Your task to perform on an android device: Show me the alarms in the clock app Image 0: 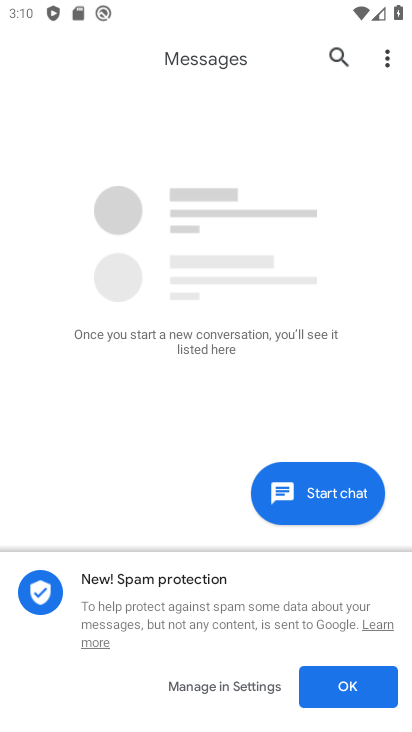
Step 0: press home button
Your task to perform on an android device: Show me the alarms in the clock app Image 1: 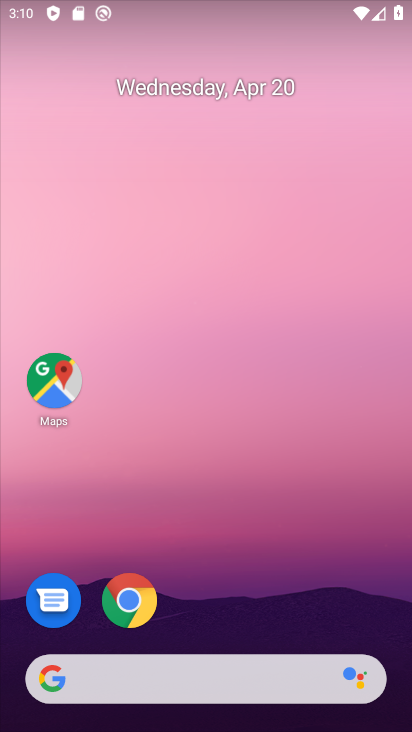
Step 1: click (235, 207)
Your task to perform on an android device: Show me the alarms in the clock app Image 2: 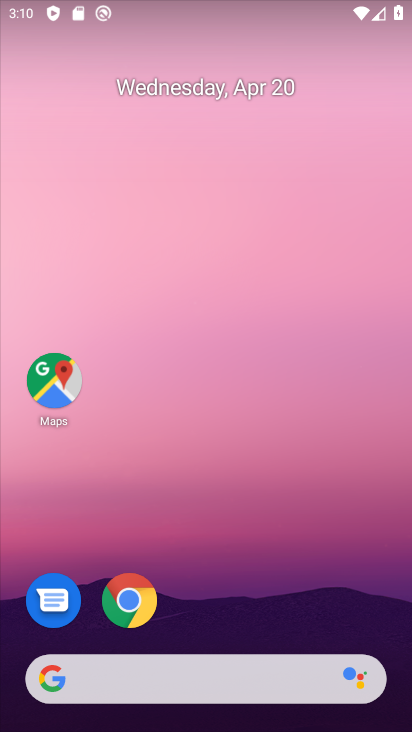
Step 2: drag from (200, 475) to (234, 174)
Your task to perform on an android device: Show me the alarms in the clock app Image 3: 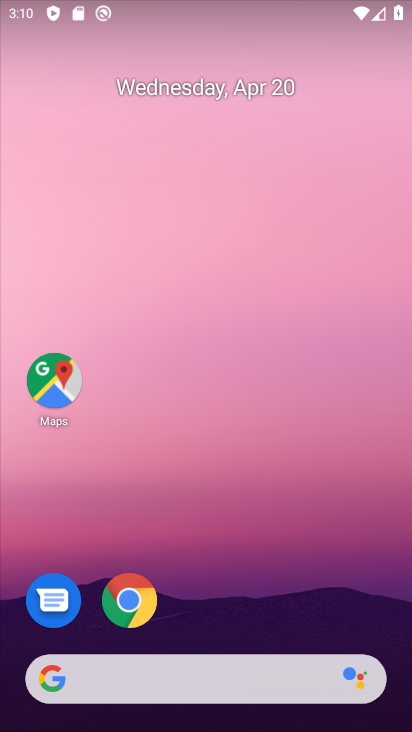
Step 3: drag from (216, 621) to (224, 160)
Your task to perform on an android device: Show me the alarms in the clock app Image 4: 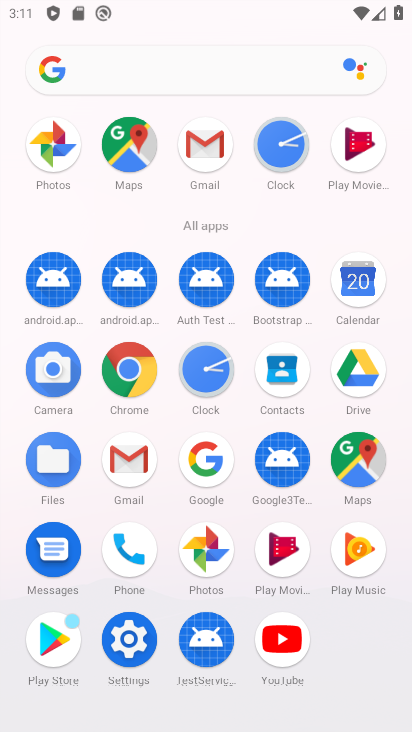
Step 4: click (200, 369)
Your task to perform on an android device: Show me the alarms in the clock app Image 5: 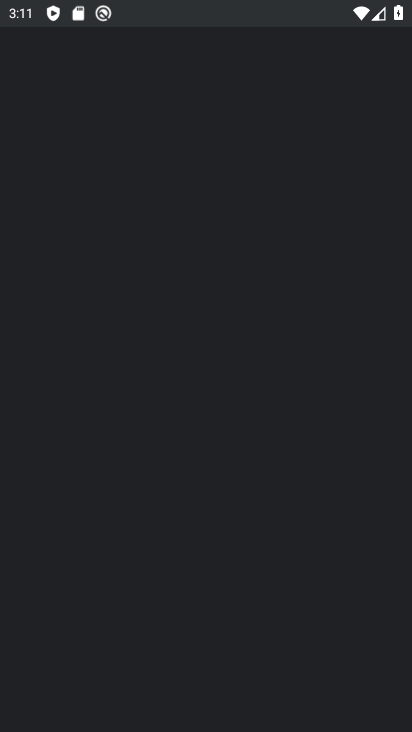
Step 5: click (200, 369)
Your task to perform on an android device: Show me the alarms in the clock app Image 6: 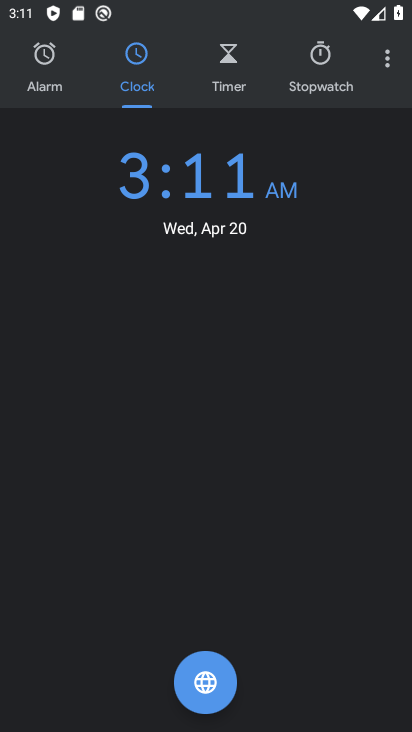
Step 6: click (50, 43)
Your task to perform on an android device: Show me the alarms in the clock app Image 7: 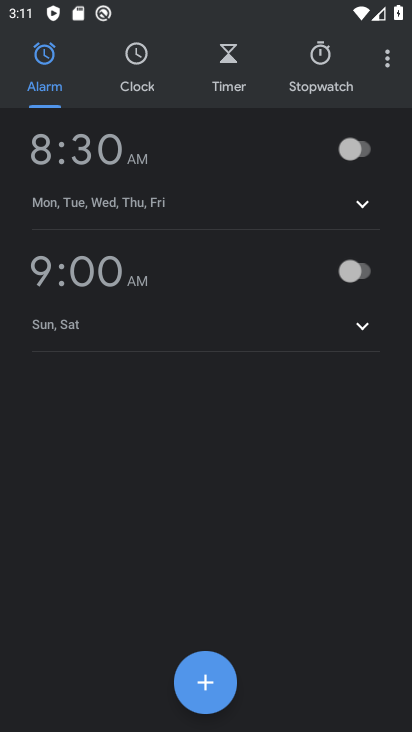
Step 7: click (358, 157)
Your task to perform on an android device: Show me the alarms in the clock app Image 8: 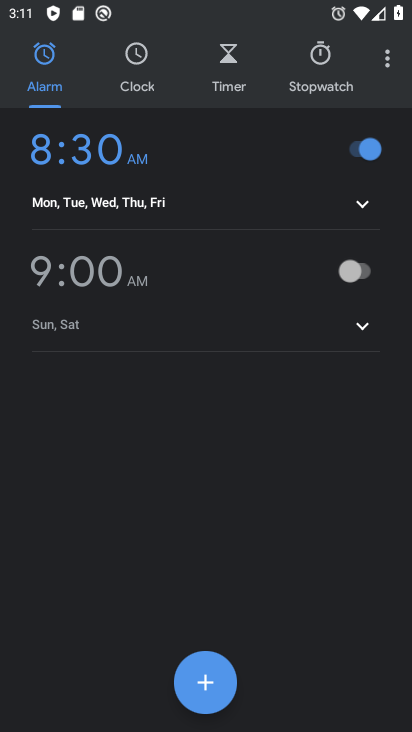
Step 8: task complete